Your task to perform on an android device: Go to Google Image 0: 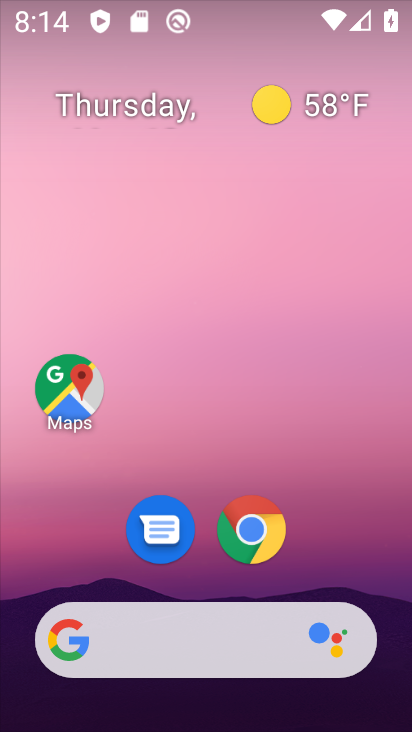
Step 0: drag from (218, 575) to (218, 101)
Your task to perform on an android device: Go to Google Image 1: 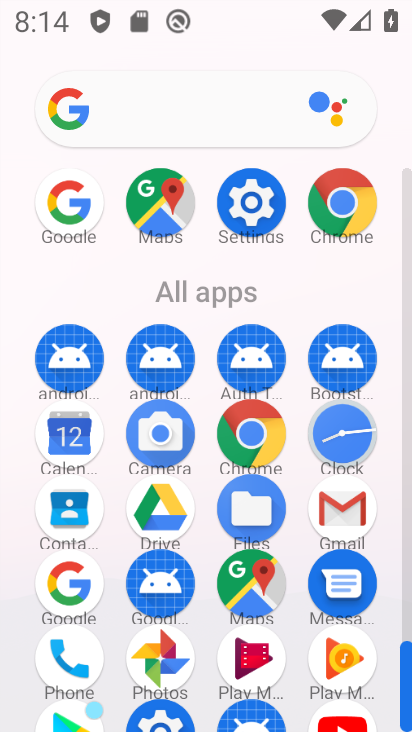
Step 1: click (70, 588)
Your task to perform on an android device: Go to Google Image 2: 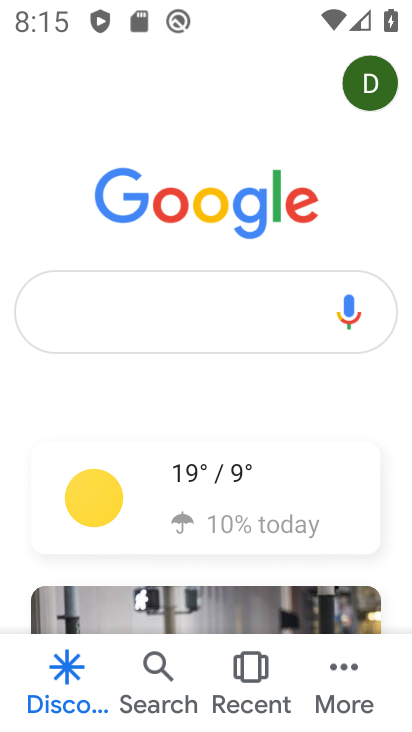
Step 2: task complete